Your task to perform on an android device: find photos in the google photos app Image 0: 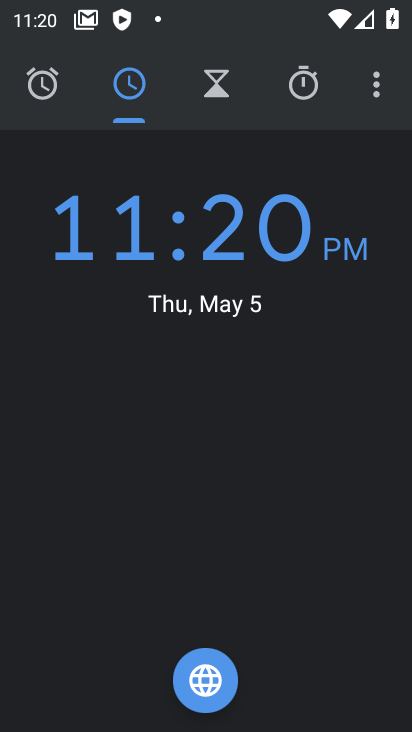
Step 0: press home button
Your task to perform on an android device: find photos in the google photos app Image 1: 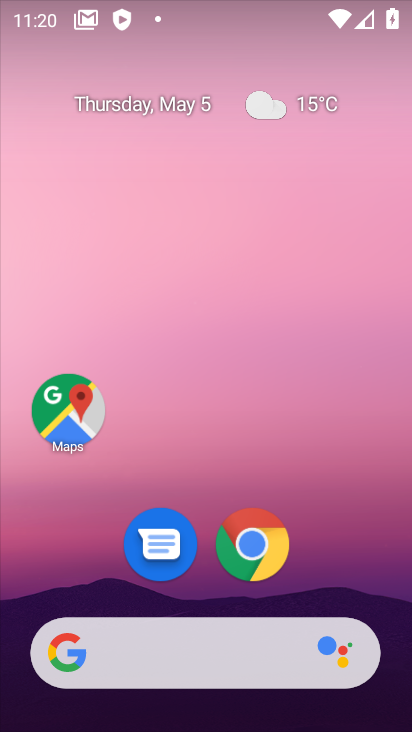
Step 1: drag from (63, 619) to (233, 75)
Your task to perform on an android device: find photos in the google photos app Image 2: 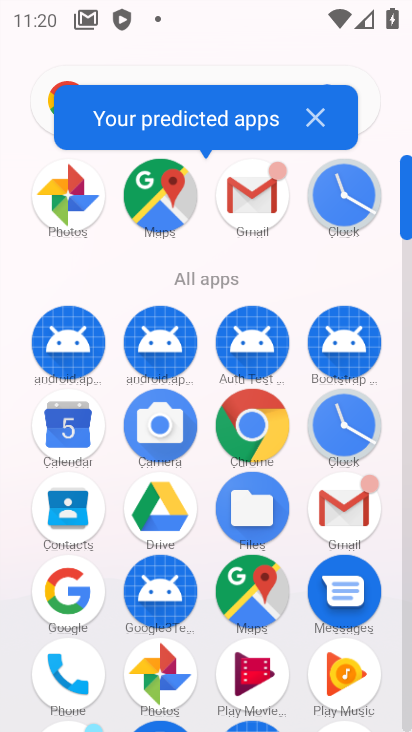
Step 2: click (156, 660)
Your task to perform on an android device: find photos in the google photos app Image 3: 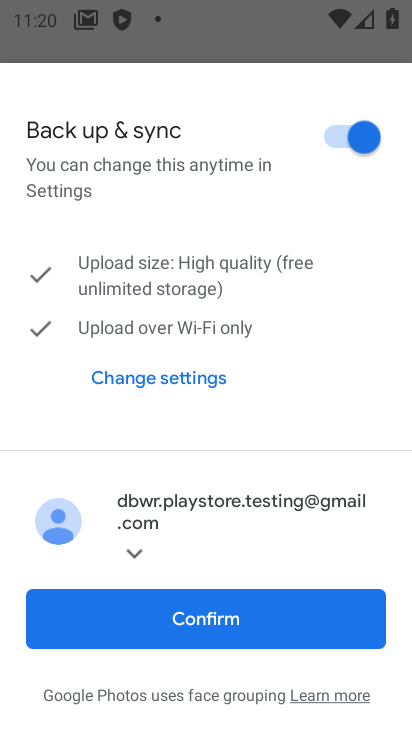
Step 3: click (210, 615)
Your task to perform on an android device: find photos in the google photos app Image 4: 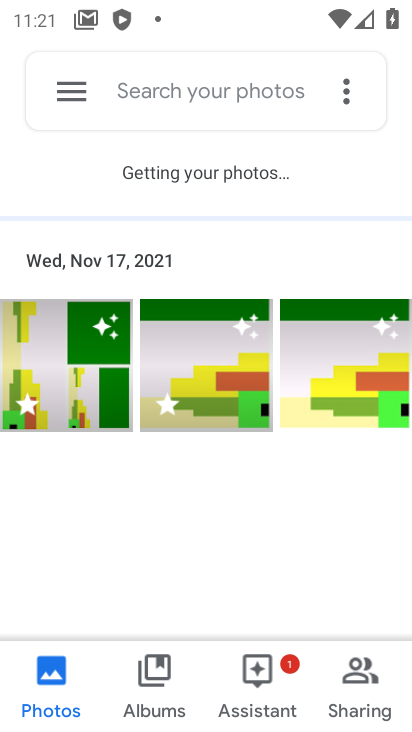
Step 4: task complete